Your task to perform on an android device: Open Google Chrome Image 0: 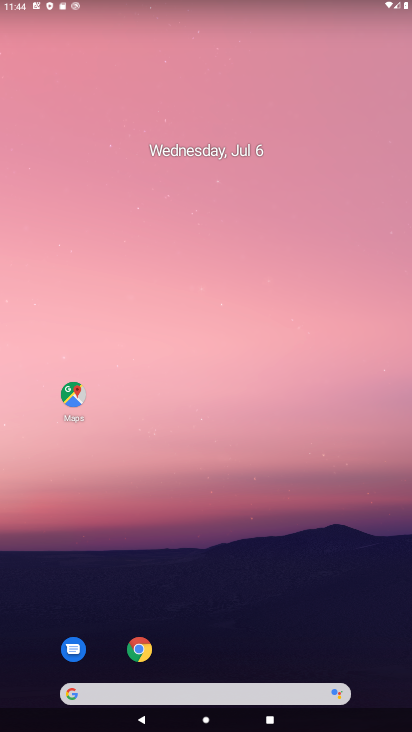
Step 0: drag from (259, 325) to (289, 259)
Your task to perform on an android device: Open Google Chrome Image 1: 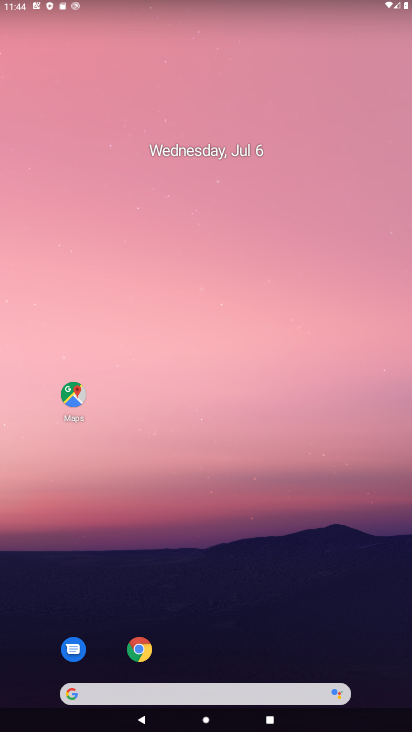
Step 1: drag from (18, 688) to (222, 16)
Your task to perform on an android device: Open Google Chrome Image 2: 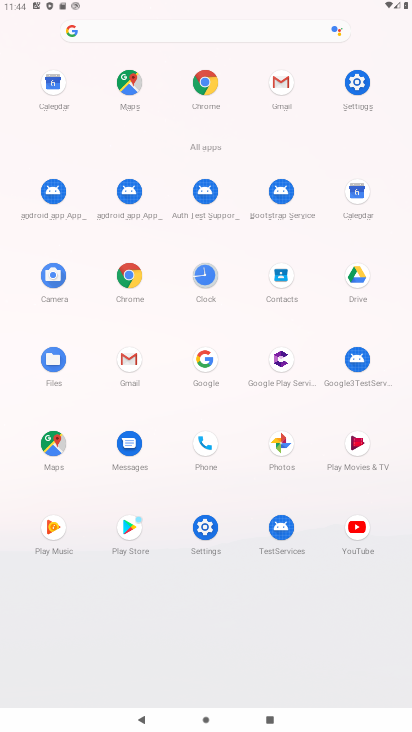
Step 2: click (206, 84)
Your task to perform on an android device: Open Google Chrome Image 3: 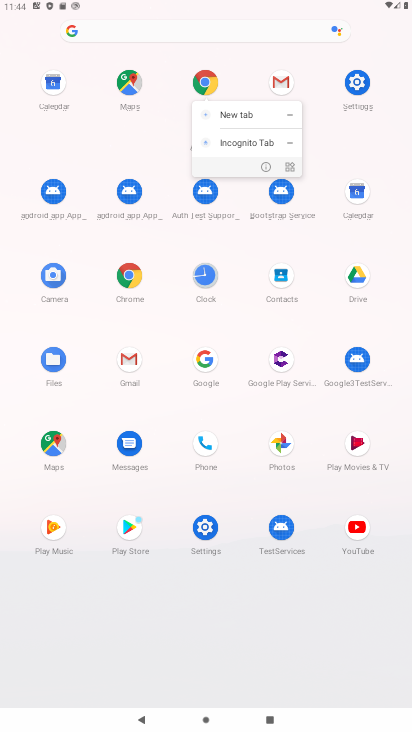
Step 3: click (209, 85)
Your task to perform on an android device: Open Google Chrome Image 4: 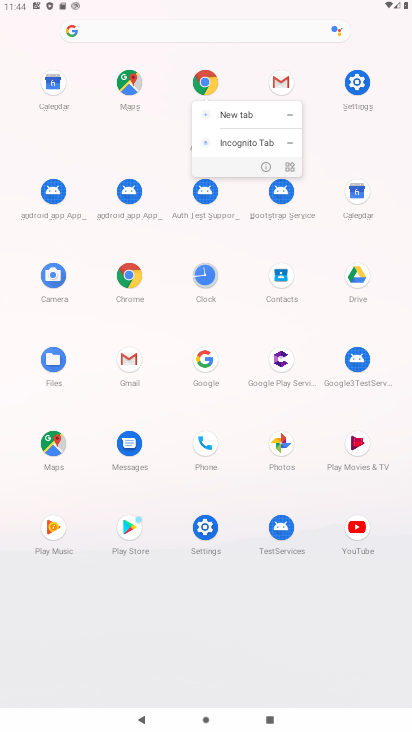
Step 4: click (209, 85)
Your task to perform on an android device: Open Google Chrome Image 5: 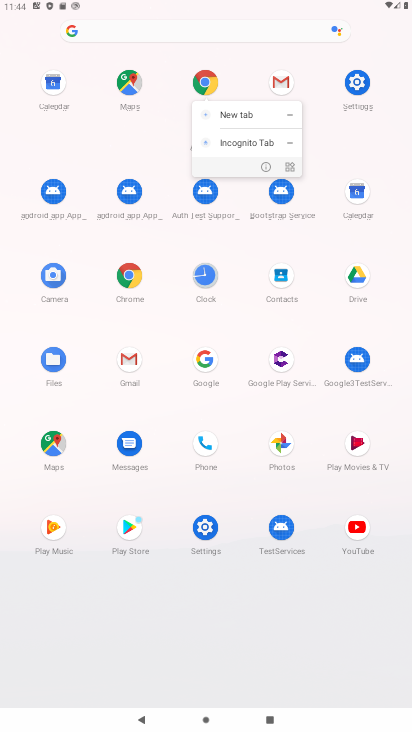
Step 5: click (204, 80)
Your task to perform on an android device: Open Google Chrome Image 6: 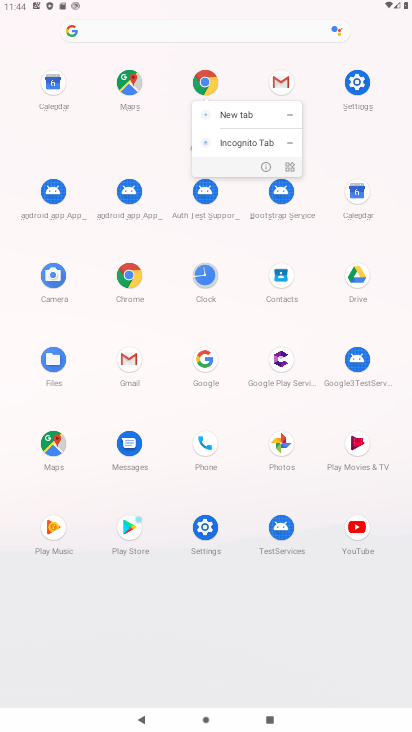
Step 6: click (204, 73)
Your task to perform on an android device: Open Google Chrome Image 7: 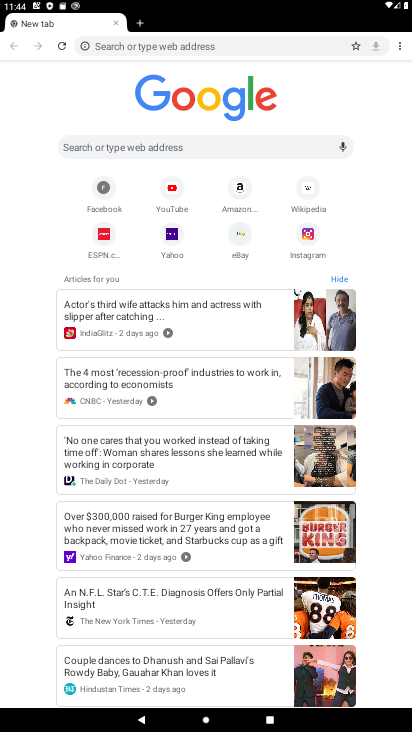
Step 7: task complete